Your task to perform on an android device: create a new album in the google photos Image 0: 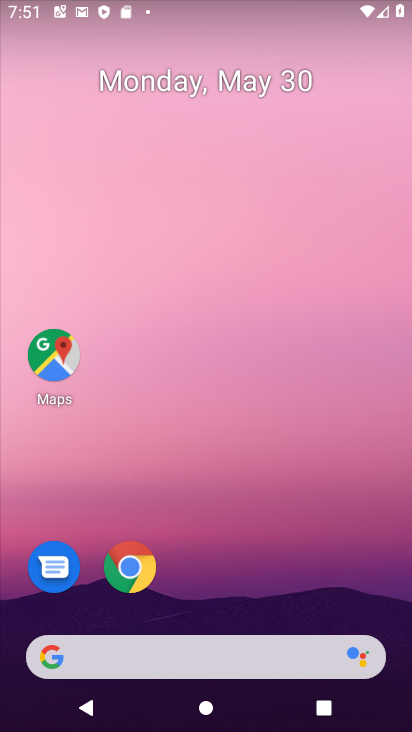
Step 0: drag from (249, 576) to (226, 252)
Your task to perform on an android device: create a new album in the google photos Image 1: 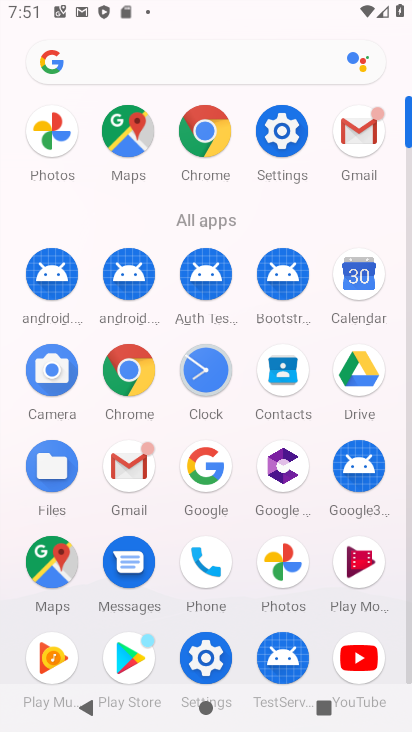
Step 1: click (51, 158)
Your task to perform on an android device: create a new album in the google photos Image 2: 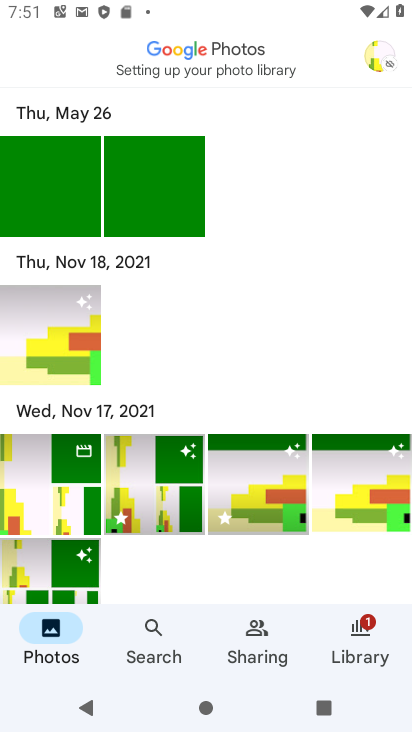
Step 2: task complete